Your task to perform on an android device: Open the Play Movies app and select the watchlist tab. Image 0: 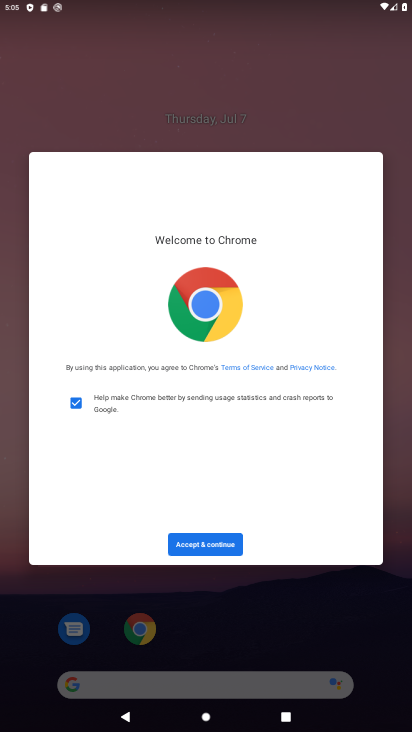
Step 0: press home button
Your task to perform on an android device: Open the Play Movies app and select the watchlist tab. Image 1: 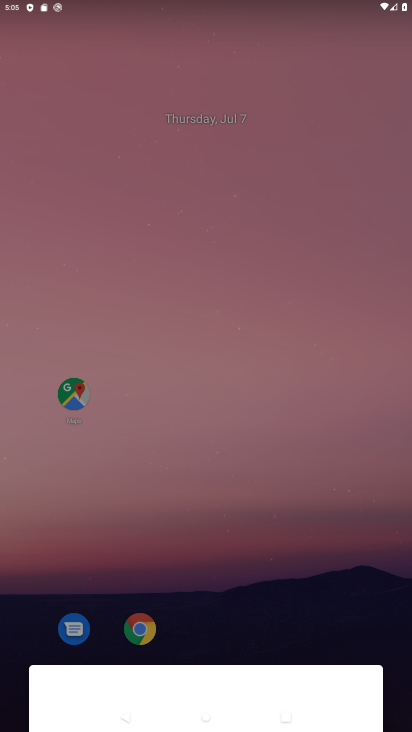
Step 1: drag from (238, 302) to (241, 113)
Your task to perform on an android device: Open the Play Movies app and select the watchlist tab. Image 2: 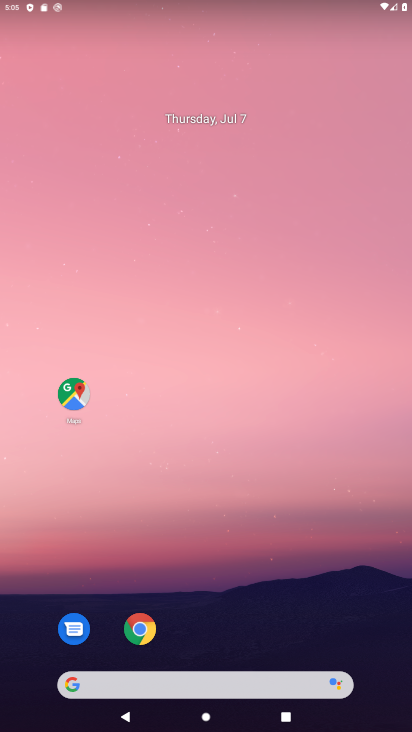
Step 2: drag from (275, 615) to (236, 43)
Your task to perform on an android device: Open the Play Movies app and select the watchlist tab. Image 3: 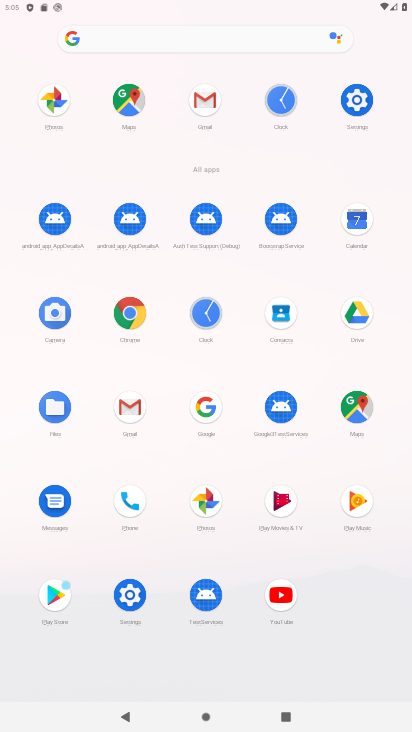
Step 3: click (262, 506)
Your task to perform on an android device: Open the Play Movies app and select the watchlist tab. Image 4: 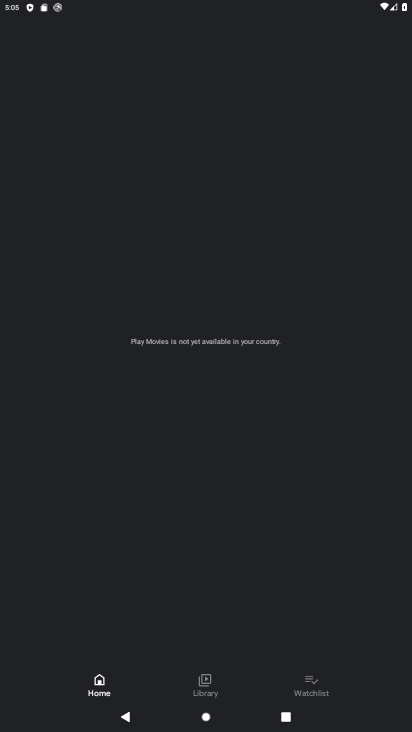
Step 4: click (320, 691)
Your task to perform on an android device: Open the Play Movies app and select the watchlist tab. Image 5: 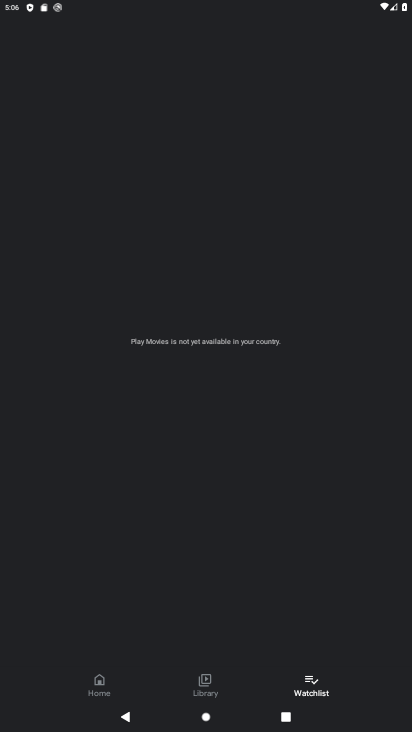
Step 5: task complete